Your task to perform on an android device: Open calendar and show me the second week of next month Image 0: 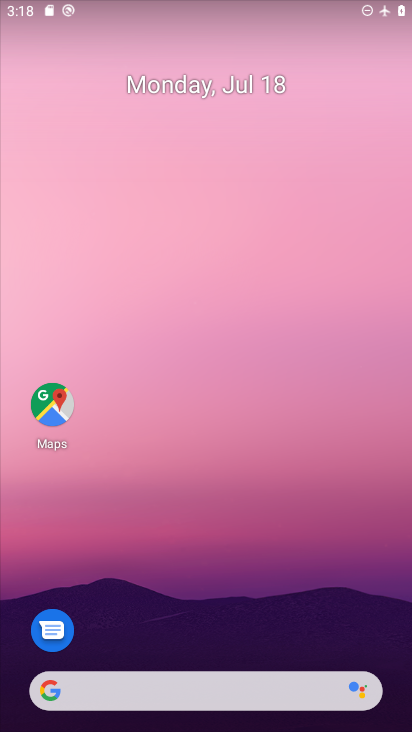
Step 0: drag from (247, 679) to (208, 176)
Your task to perform on an android device: Open calendar and show me the second week of next month Image 1: 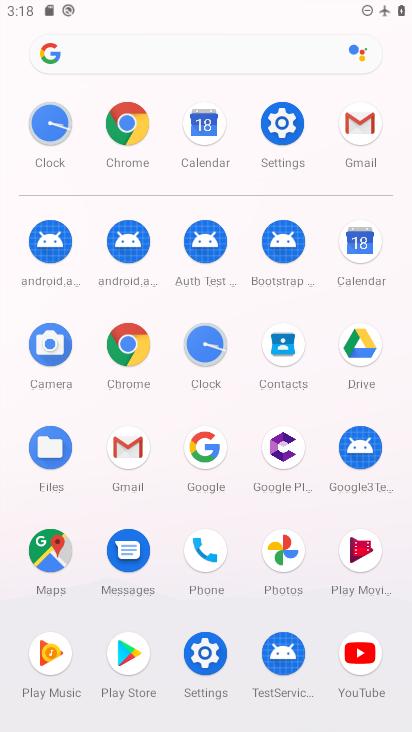
Step 1: click (366, 254)
Your task to perform on an android device: Open calendar and show me the second week of next month Image 2: 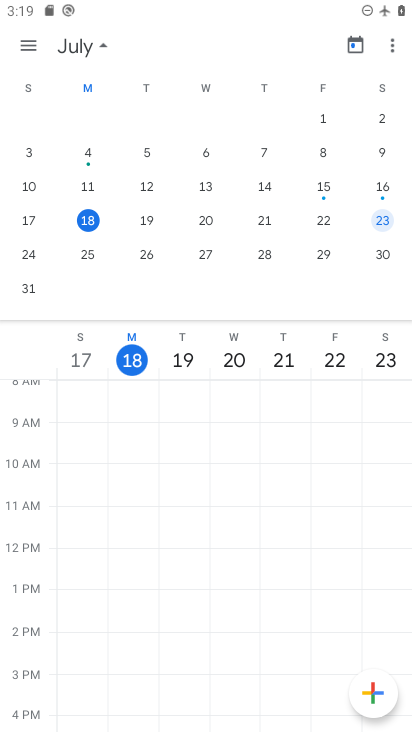
Step 2: drag from (324, 221) to (17, 218)
Your task to perform on an android device: Open calendar and show me the second week of next month Image 3: 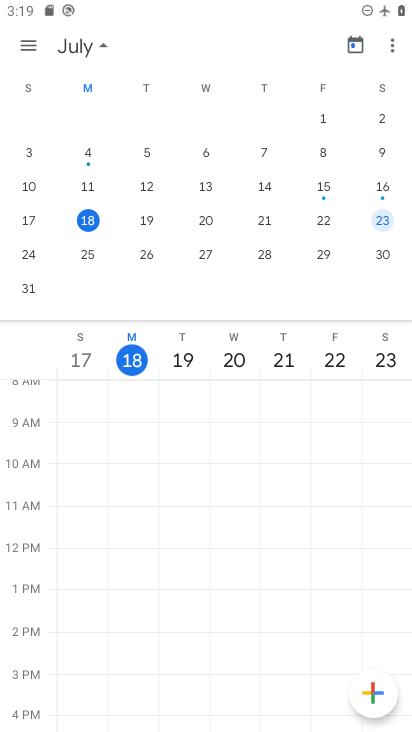
Step 3: drag from (331, 178) to (6, 234)
Your task to perform on an android device: Open calendar and show me the second week of next month Image 4: 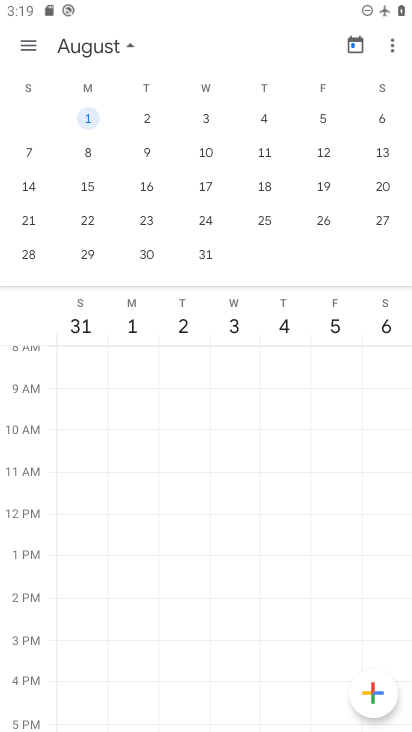
Step 4: click (205, 147)
Your task to perform on an android device: Open calendar and show me the second week of next month Image 5: 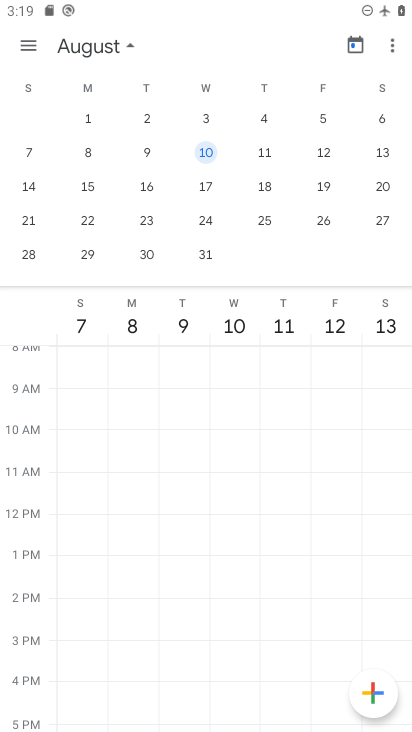
Step 5: task complete